Your task to perform on an android device: Open calendar and show me the first week of next month Image 0: 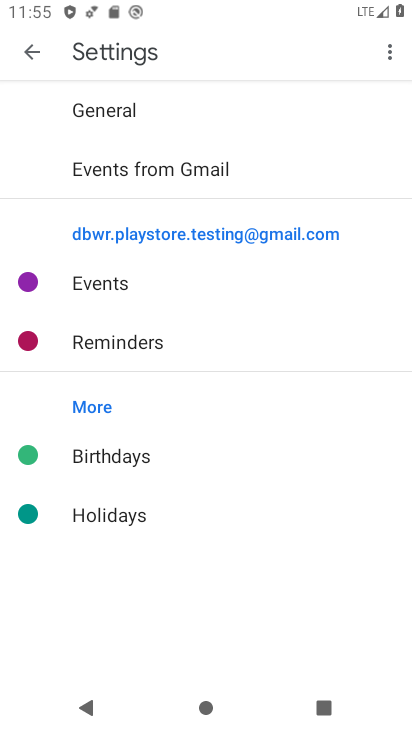
Step 0: press home button
Your task to perform on an android device: Open calendar and show me the first week of next month Image 1: 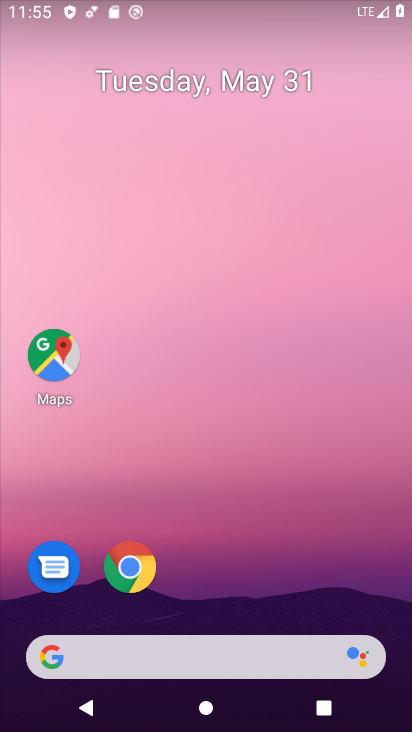
Step 1: drag from (263, 614) to (247, 213)
Your task to perform on an android device: Open calendar and show me the first week of next month Image 2: 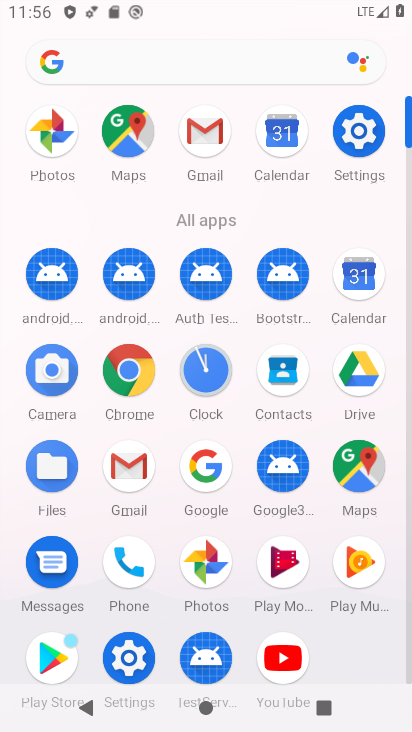
Step 2: click (375, 292)
Your task to perform on an android device: Open calendar and show me the first week of next month Image 3: 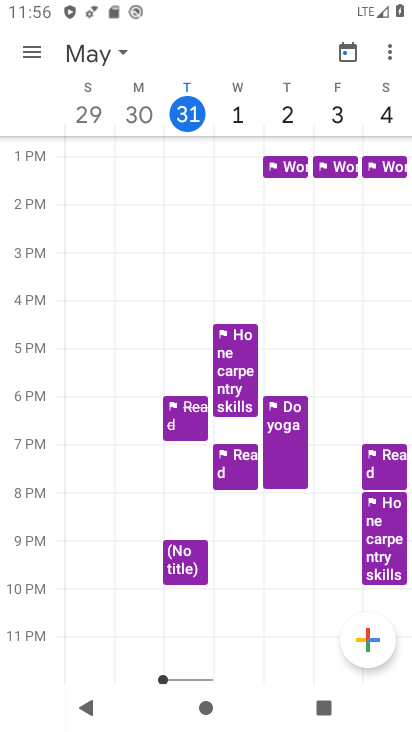
Step 3: click (117, 63)
Your task to perform on an android device: Open calendar and show me the first week of next month Image 4: 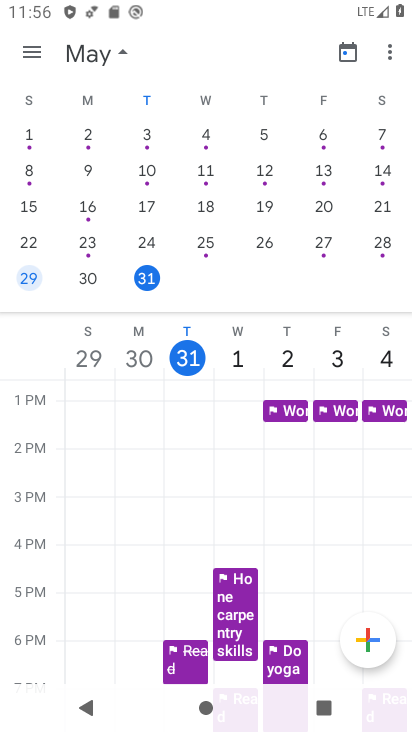
Step 4: drag from (387, 221) to (15, 151)
Your task to perform on an android device: Open calendar and show me the first week of next month Image 5: 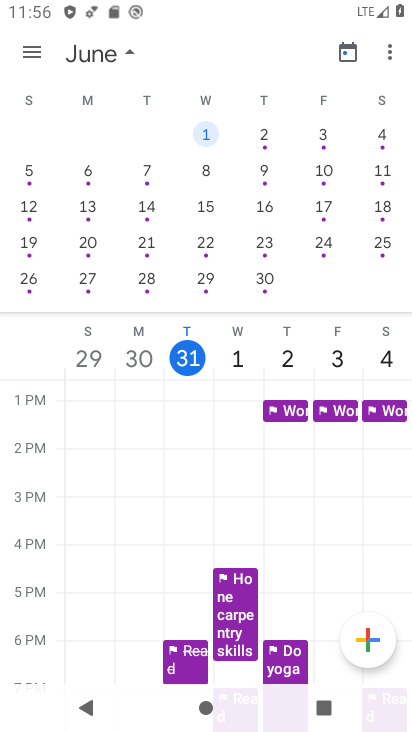
Step 5: click (267, 133)
Your task to perform on an android device: Open calendar and show me the first week of next month Image 6: 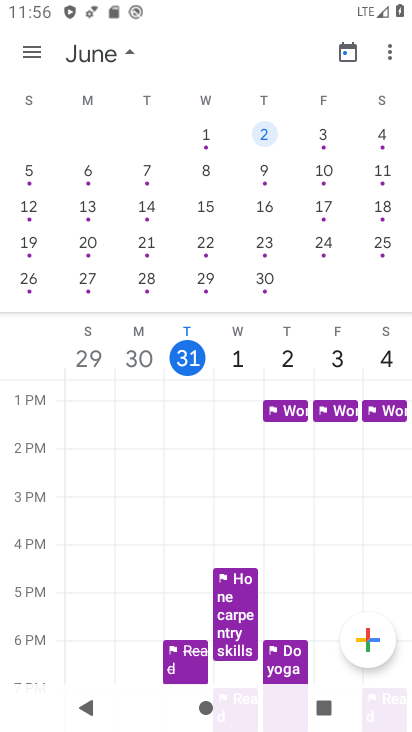
Step 6: task complete